Your task to perform on an android device: toggle pop-ups in chrome Image 0: 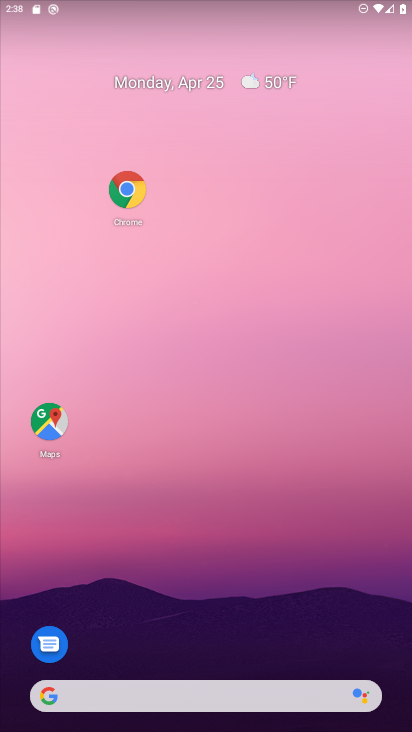
Step 0: click (131, 193)
Your task to perform on an android device: toggle pop-ups in chrome Image 1: 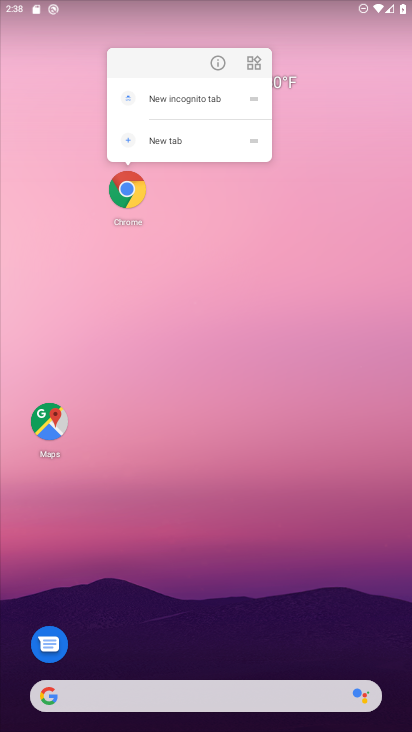
Step 1: click (220, 66)
Your task to perform on an android device: toggle pop-ups in chrome Image 2: 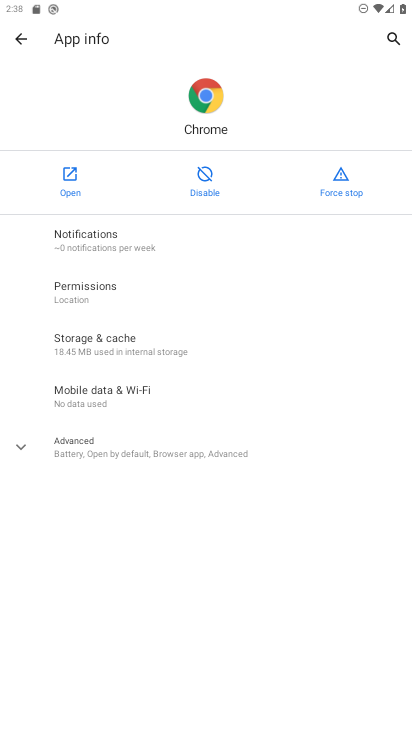
Step 2: click (61, 181)
Your task to perform on an android device: toggle pop-ups in chrome Image 3: 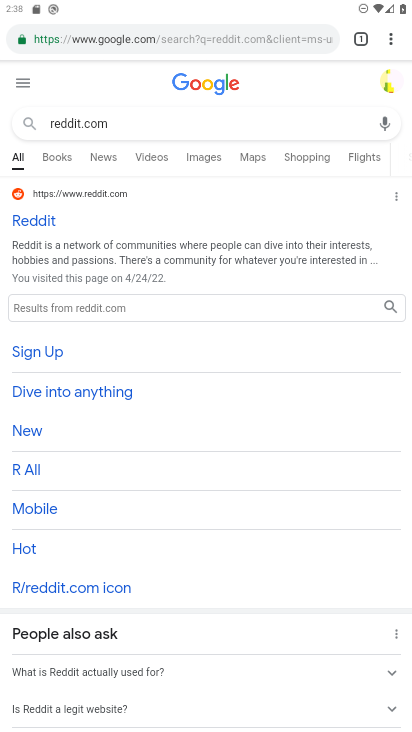
Step 3: click (392, 41)
Your task to perform on an android device: toggle pop-ups in chrome Image 4: 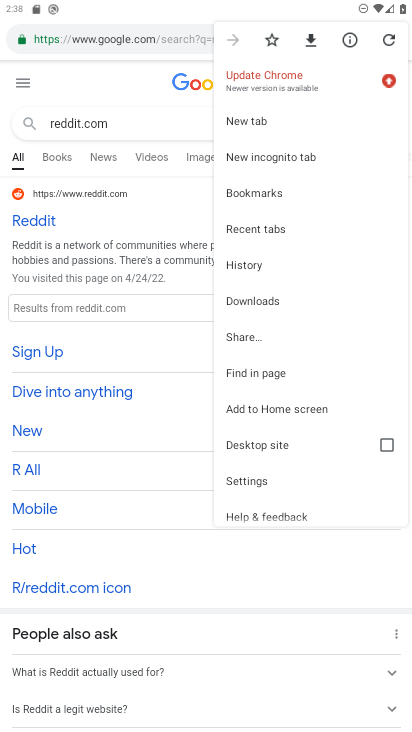
Step 4: click (254, 479)
Your task to perform on an android device: toggle pop-ups in chrome Image 5: 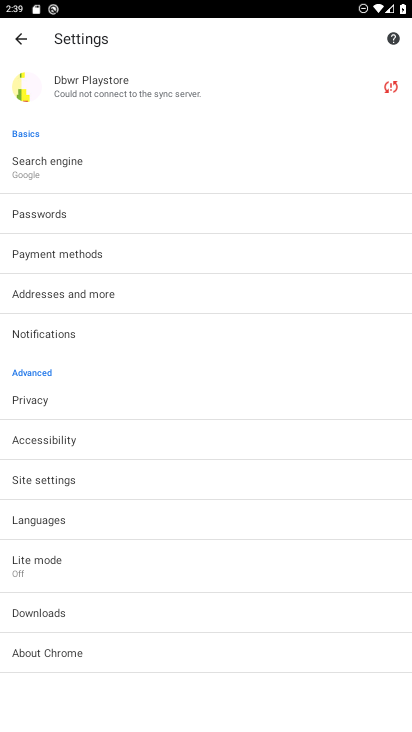
Step 5: click (98, 475)
Your task to perform on an android device: toggle pop-ups in chrome Image 6: 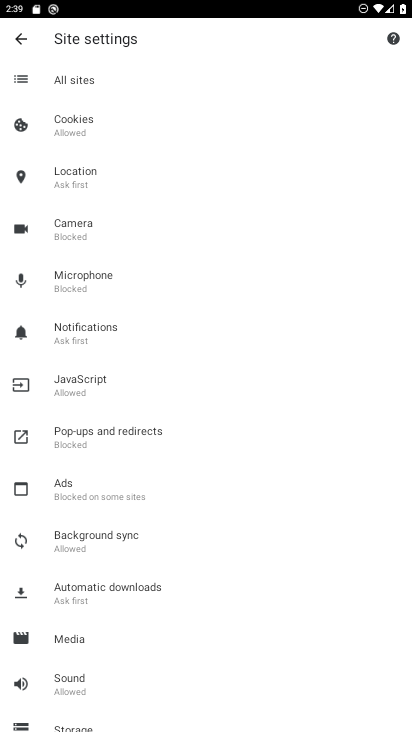
Step 6: click (88, 442)
Your task to perform on an android device: toggle pop-ups in chrome Image 7: 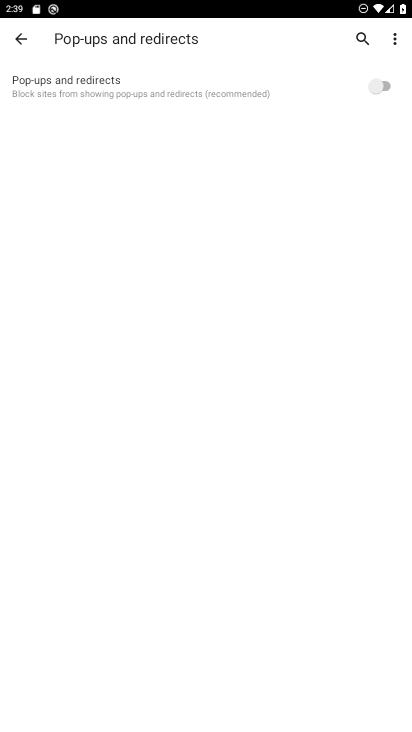
Step 7: click (386, 87)
Your task to perform on an android device: toggle pop-ups in chrome Image 8: 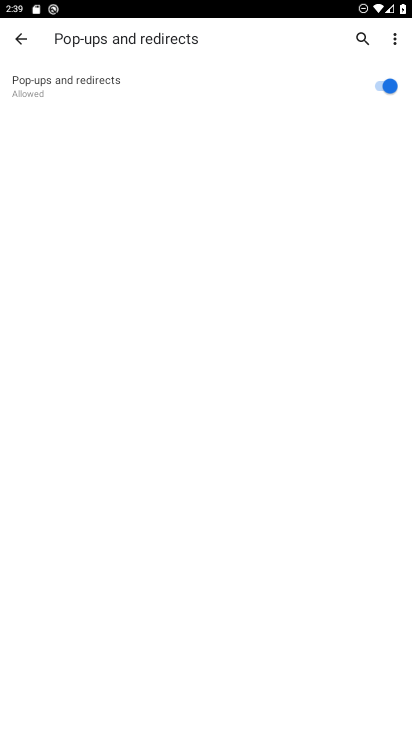
Step 8: task complete